Your task to perform on an android device: Open battery settings Image 0: 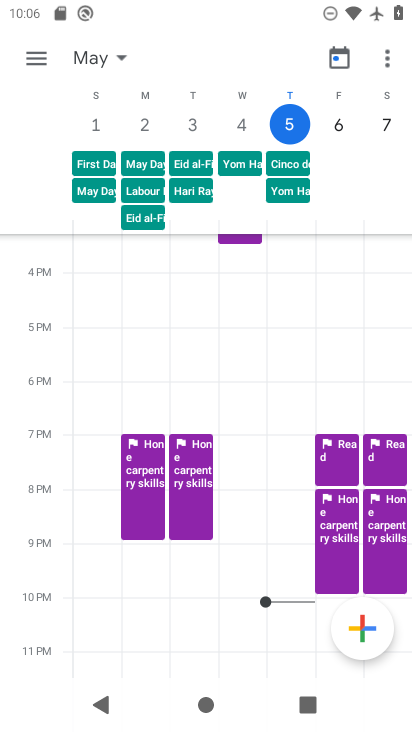
Step 0: press home button
Your task to perform on an android device: Open battery settings Image 1: 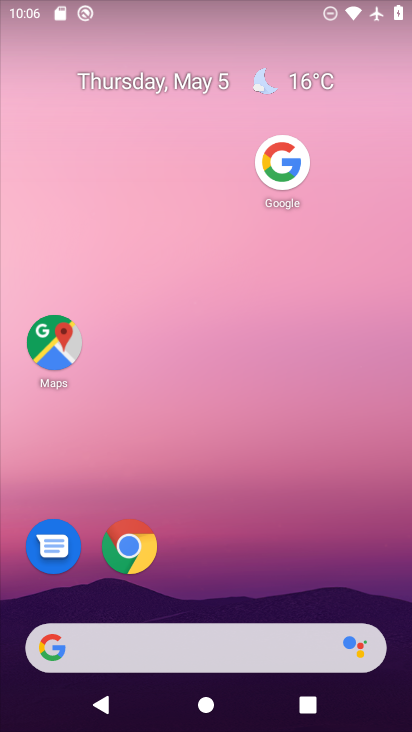
Step 1: drag from (238, 641) to (351, 127)
Your task to perform on an android device: Open battery settings Image 2: 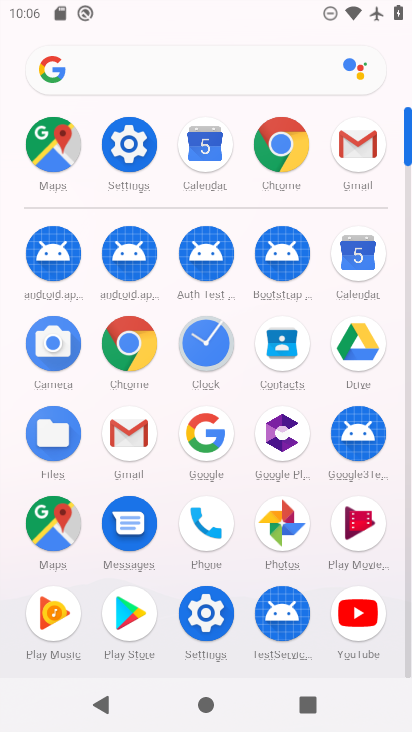
Step 2: click (138, 155)
Your task to perform on an android device: Open battery settings Image 3: 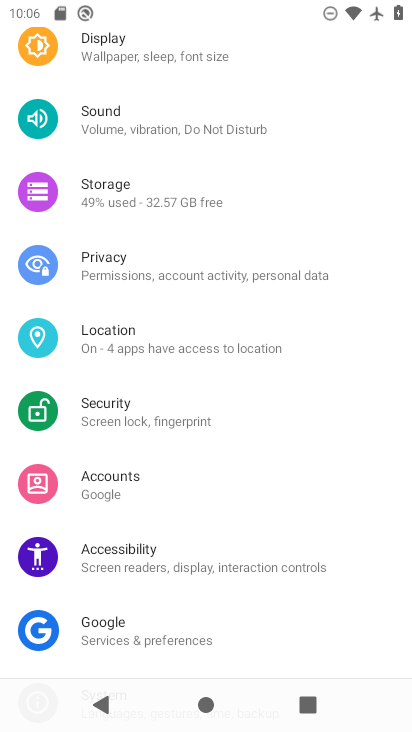
Step 3: drag from (332, 115) to (302, 483)
Your task to perform on an android device: Open battery settings Image 4: 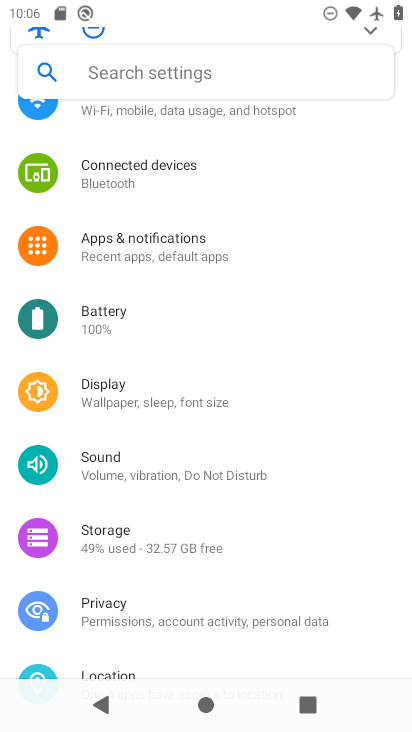
Step 4: click (140, 306)
Your task to perform on an android device: Open battery settings Image 5: 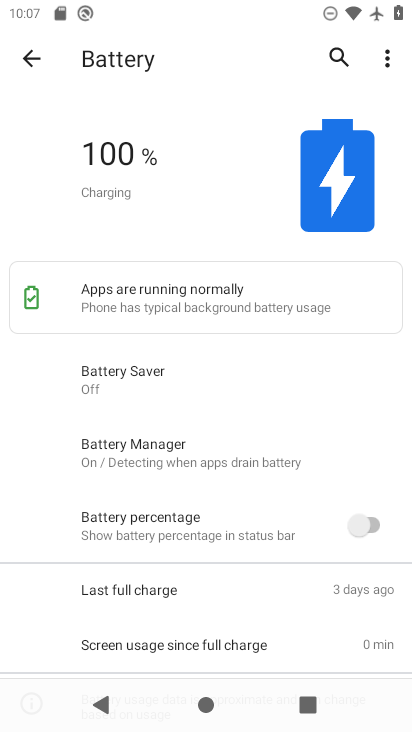
Step 5: task complete